Your task to perform on an android device: Do I have any events today? Image 0: 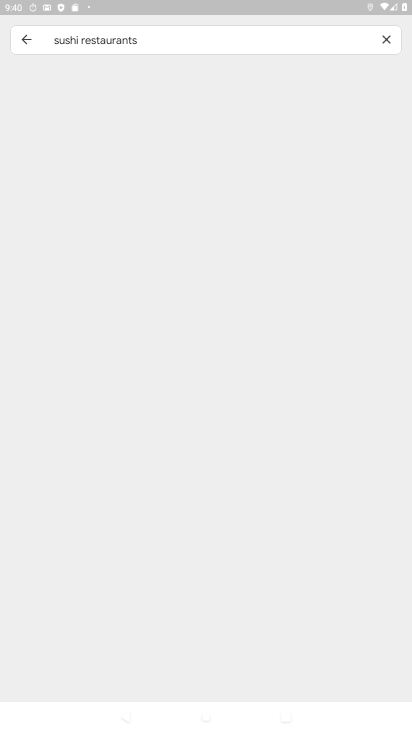
Step 0: click (29, 47)
Your task to perform on an android device: Do I have any events today? Image 1: 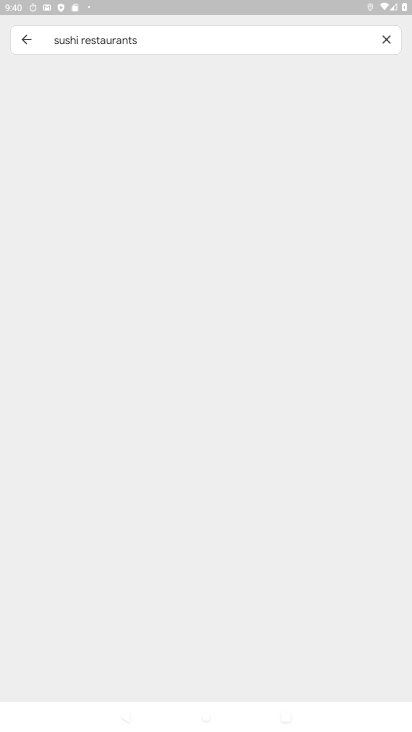
Step 1: click (33, 46)
Your task to perform on an android device: Do I have any events today? Image 2: 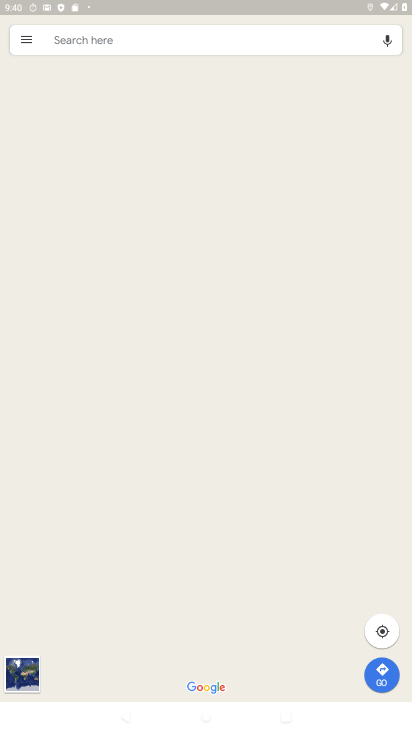
Step 2: click (33, 46)
Your task to perform on an android device: Do I have any events today? Image 3: 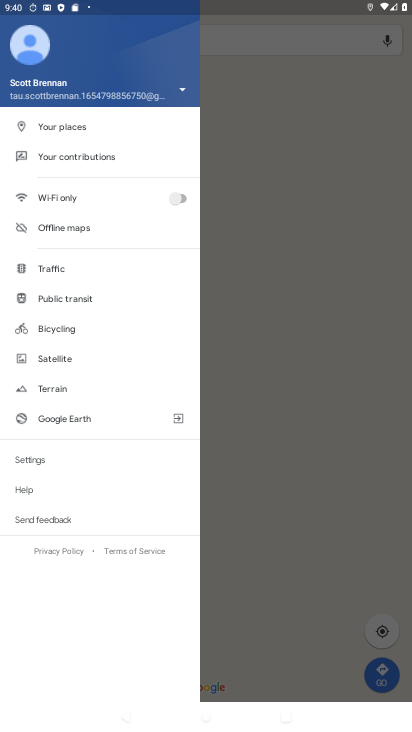
Step 3: click (330, 289)
Your task to perform on an android device: Do I have any events today? Image 4: 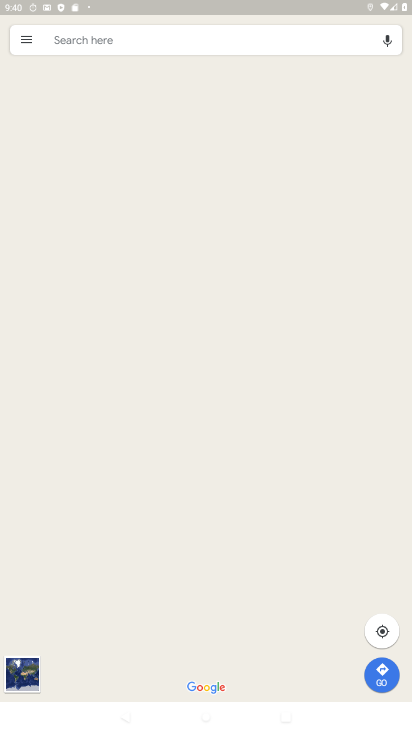
Step 4: press home button
Your task to perform on an android device: Do I have any events today? Image 5: 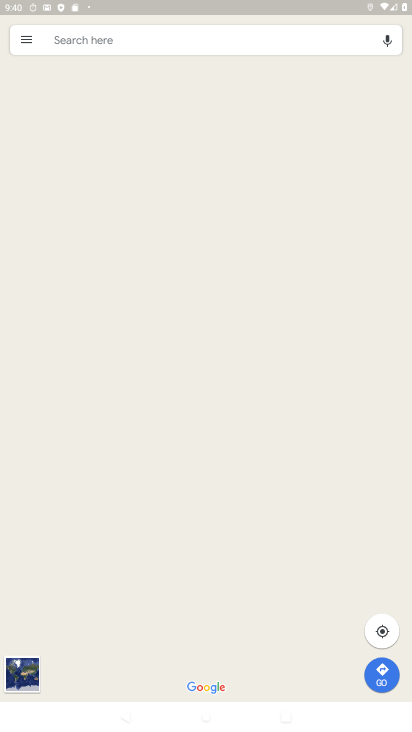
Step 5: press home button
Your task to perform on an android device: Do I have any events today? Image 6: 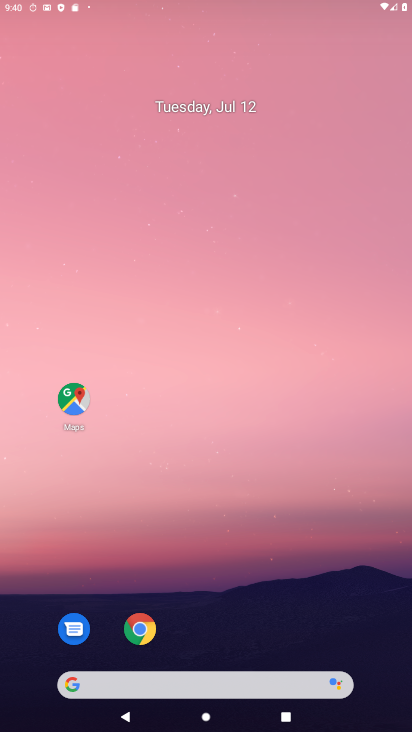
Step 6: press home button
Your task to perform on an android device: Do I have any events today? Image 7: 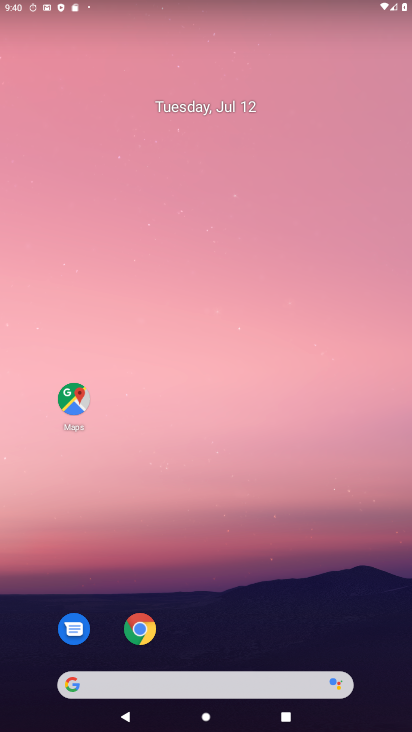
Step 7: drag from (226, 625) to (226, 158)
Your task to perform on an android device: Do I have any events today? Image 8: 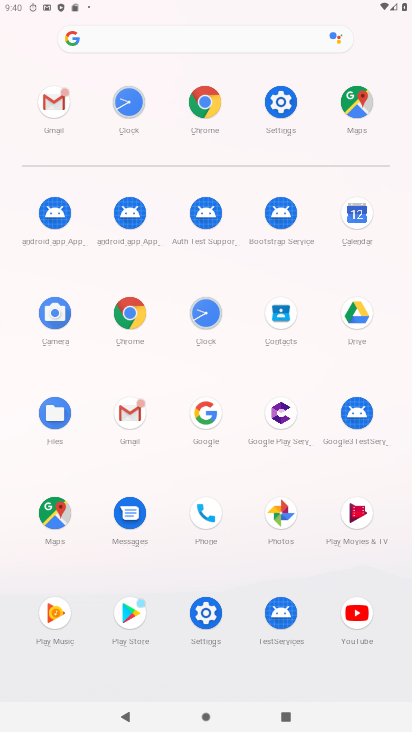
Step 8: click (348, 208)
Your task to perform on an android device: Do I have any events today? Image 9: 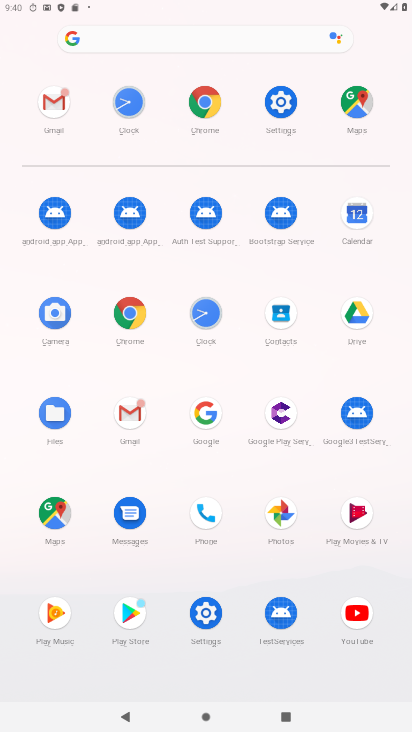
Step 9: click (351, 208)
Your task to perform on an android device: Do I have any events today? Image 10: 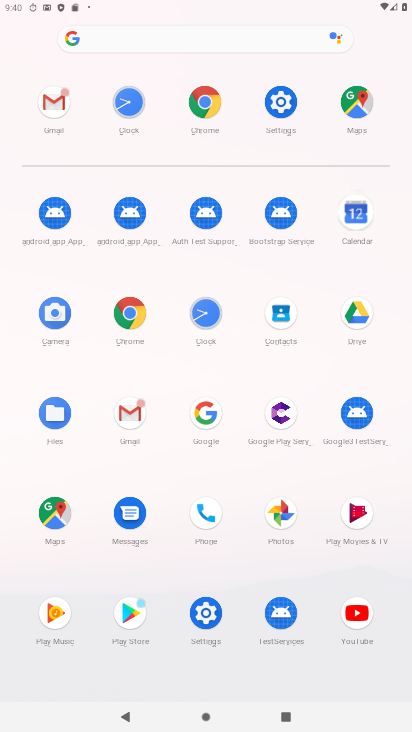
Step 10: click (352, 208)
Your task to perform on an android device: Do I have any events today? Image 11: 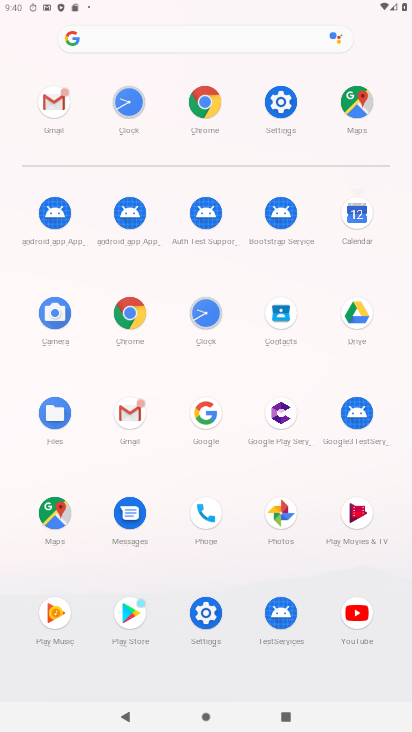
Step 11: click (352, 208)
Your task to perform on an android device: Do I have any events today? Image 12: 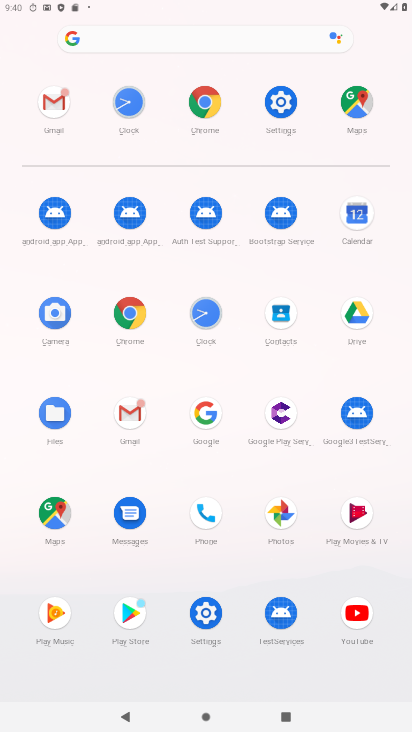
Step 12: click (353, 209)
Your task to perform on an android device: Do I have any events today? Image 13: 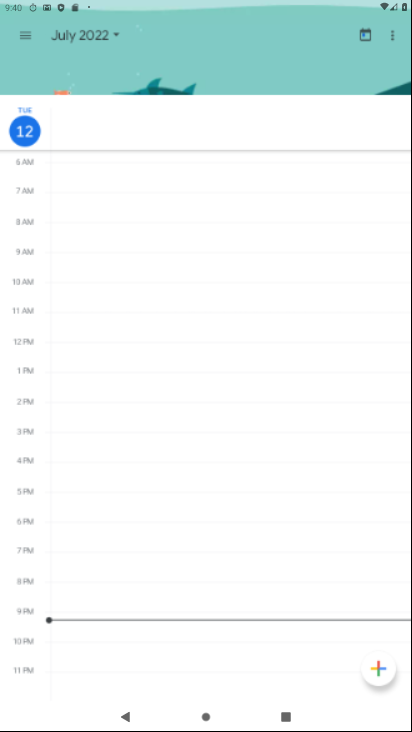
Step 13: click (360, 215)
Your task to perform on an android device: Do I have any events today? Image 14: 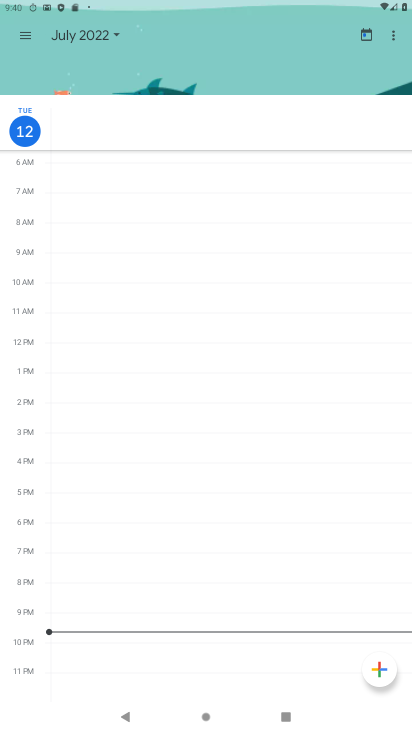
Step 14: click (25, 36)
Your task to perform on an android device: Do I have any events today? Image 15: 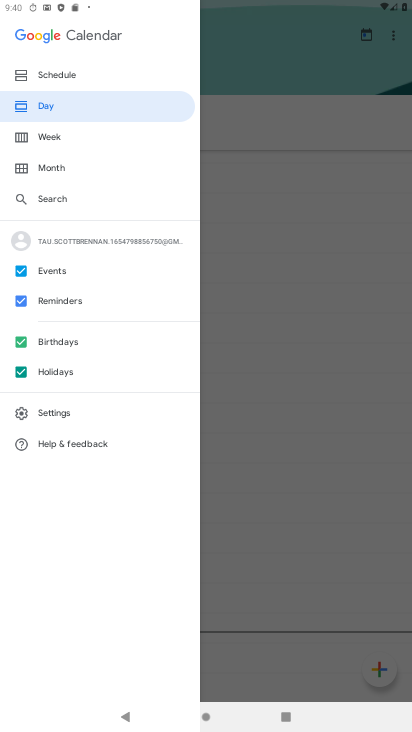
Step 15: click (253, 221)
Your task to perform on an android device: Do I have any events today? Image 16: 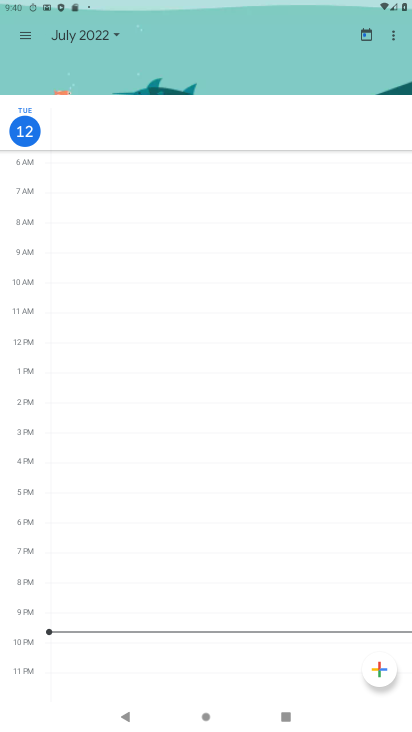
Step 16: click (110, 32)
Your task to perform on an android device: Do I have any events today? Image 17: 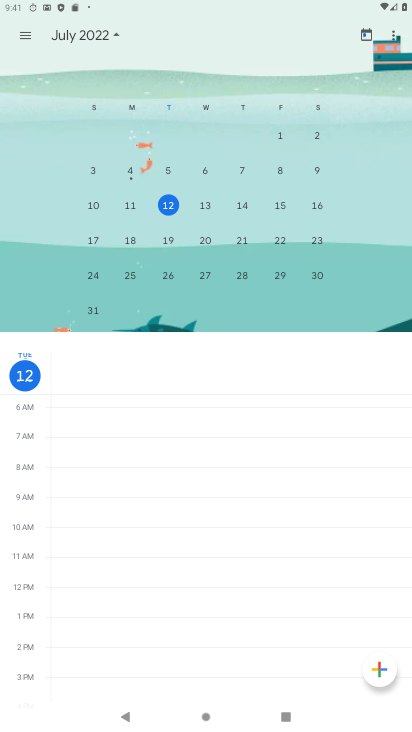
Step 17: click (204, 211)
Your task to perform on an android device: Do I have any events today? Image 18: 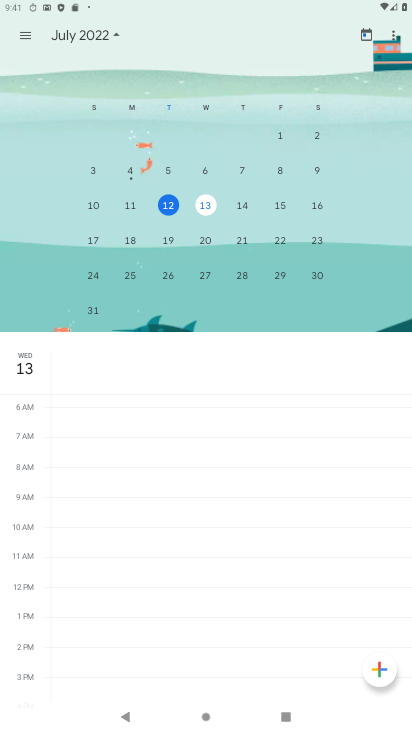
Step 18: click (205, 207)
Your task to perform on an android device: Do I have any events today? Image 19: 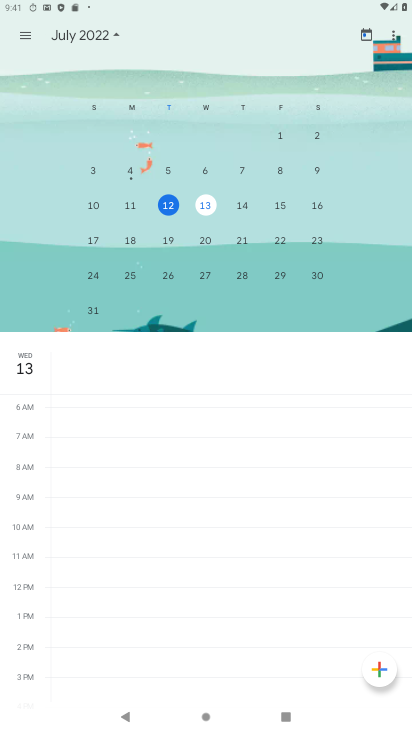
Step 19: click (206, 206)
Your task to perform on an android device: Do I have any events today? Image 20: 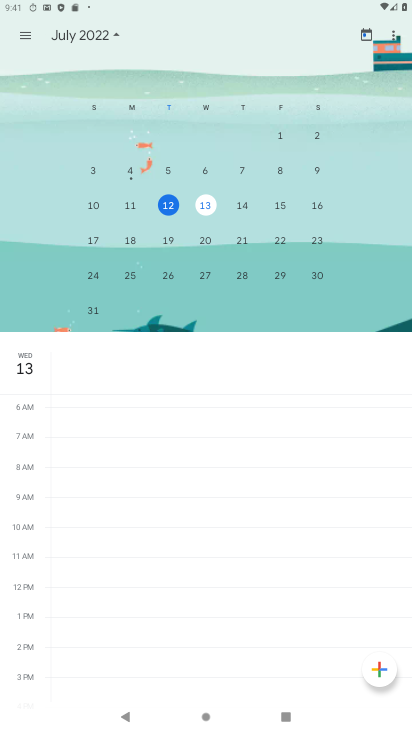
Step 20: click (206, 206)
Your task to perform on an android device: Do I have any events today? Image 21: 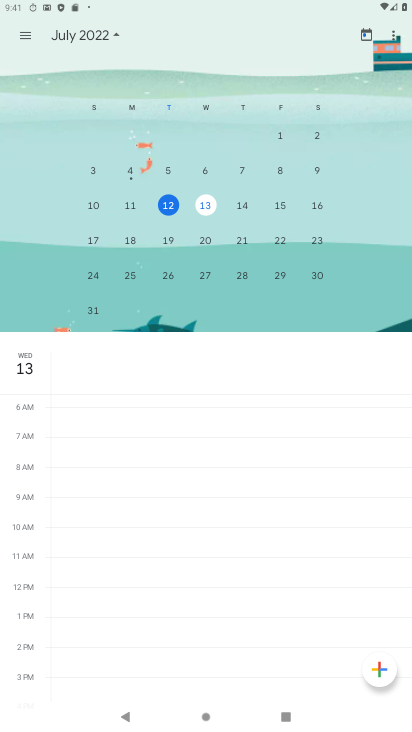
Step 21: task complete